Your task to perform on an android device: Open Youtube and go to "Your channel" Image 0: 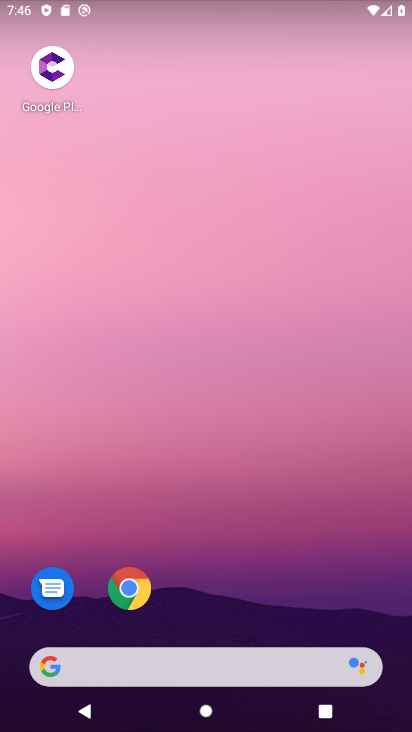
Step 0: drag from (323, 606) to (261, 0)
Your task to perform on an android device: Open Youtube and go to "Your channel" Image 1: 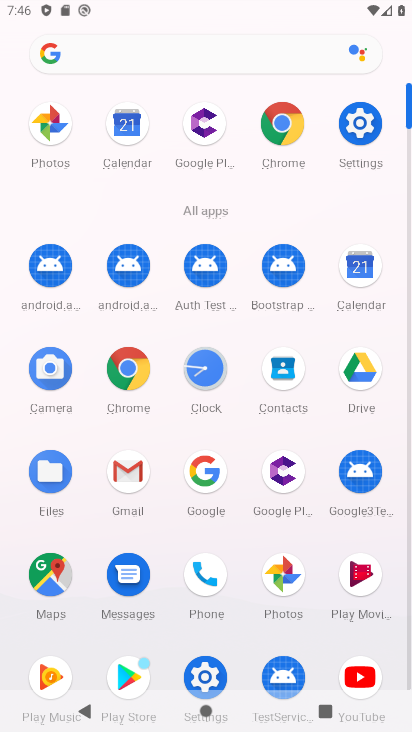
Step 1: drag from (189, 217) to (184, 7)
Your task to perform on an android device: Open Youtube and go to "Your channel" Image 2: 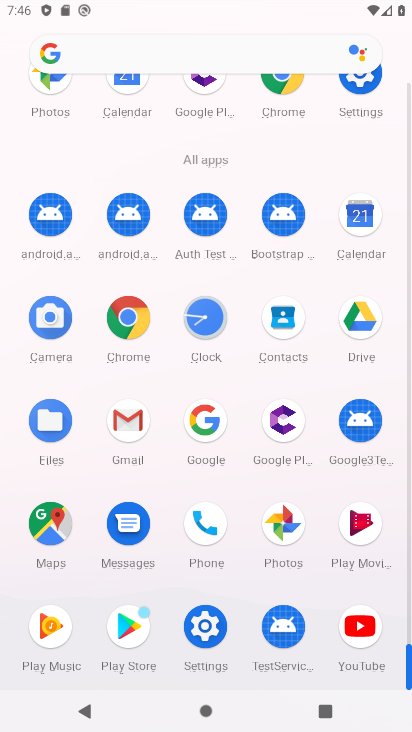
Step 2: click (365, 626)
Your task to perform on an android device: Open Youtube and go to "Your channel" Image 3: 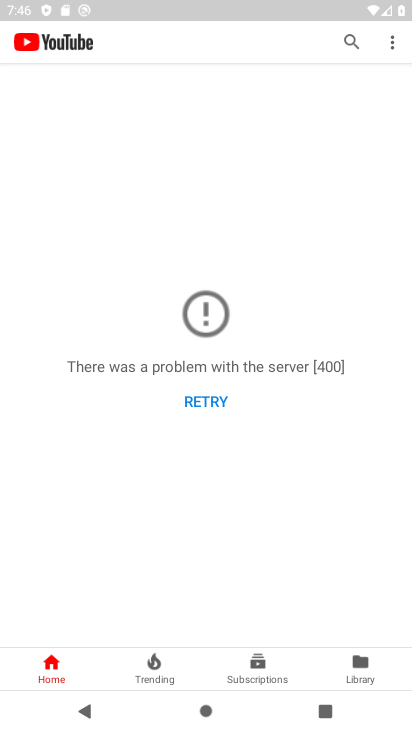
Step 3: click (349, 661)
Your task to perform on an android device: Open Youtube and go to "Your channel" Image 4: 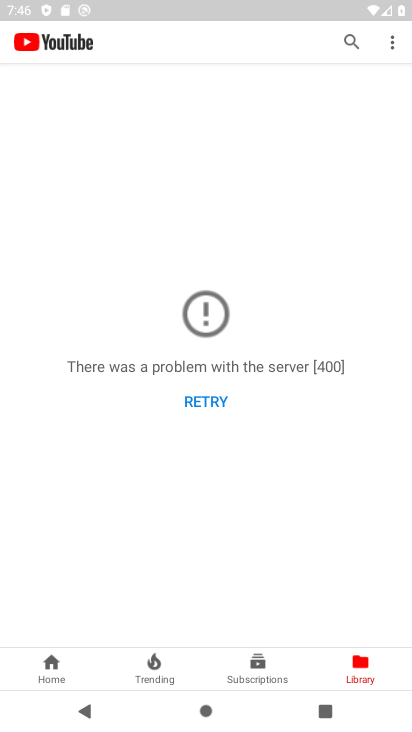
Step 4: click (368, 664)
Your task to perform on an android device: Open Youtube and go to "Your channel" Image 5: 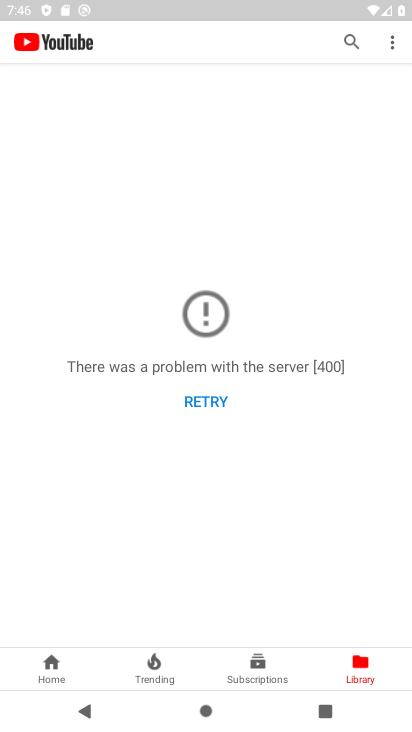
Step 5: click (209, 403)
Your task to perform on an android device: Open Youtube and go to "Your channel" Image 6: 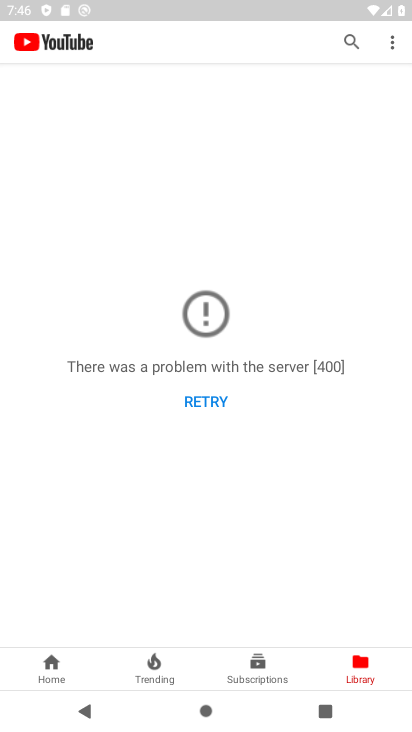
Step 6: click (209, 403)
Your task to perform on an android device: Open Youtube and go to "Your channel" Image 7: 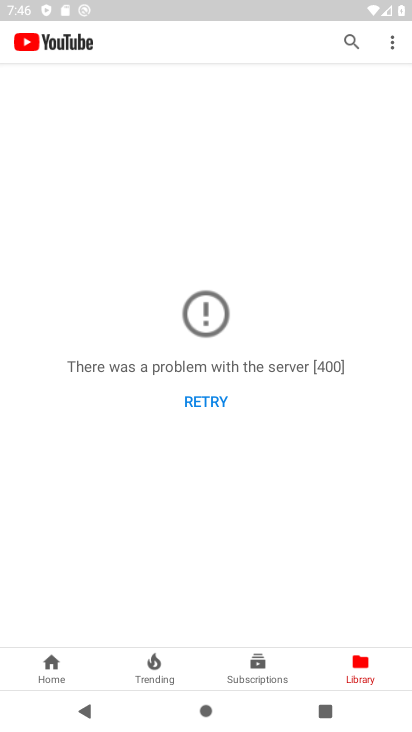
Step 7: click (186, 394)
Your task to perform on an android device: Open Youtube and go to "Your channel" Image 8: 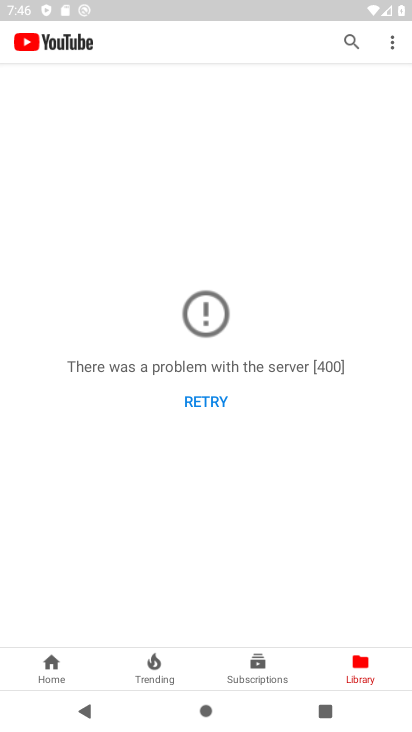
Step 8: click (266, 672)
Your task to perform on an android device: Open Youtube and go to "Your channel" Image 9: 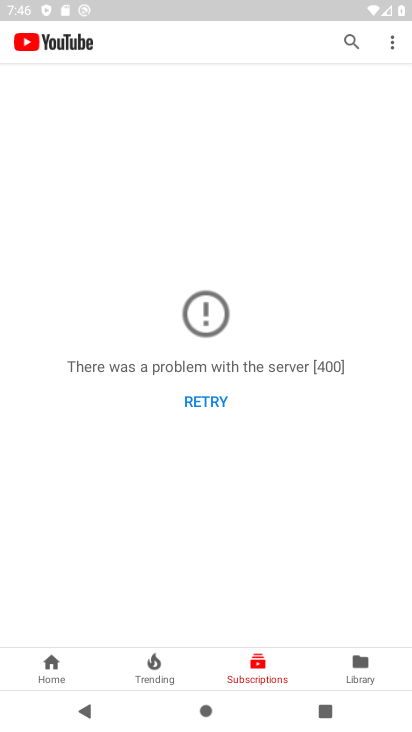
Step 9: click (152, 664)
Your task to perform on an android device: Open Youtube and go to "Your channel" Image 10: 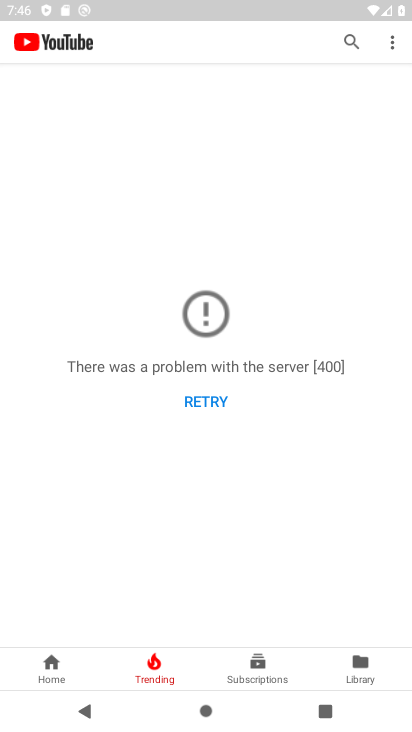
Step 10: click (33, 668)
Your task to perform on an android device: Open Youtube and go to "Your channel" Image 11: 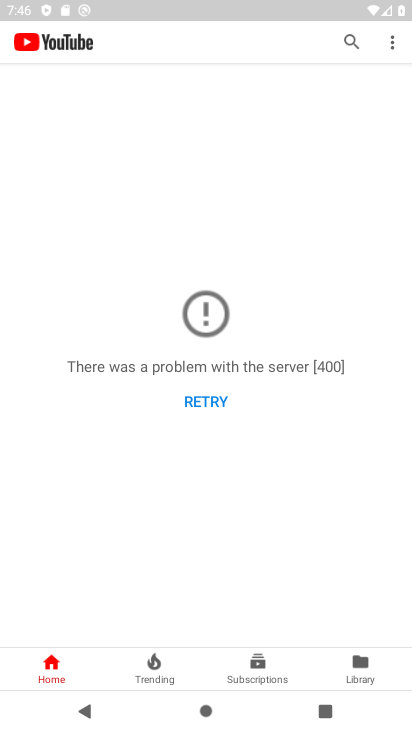
Step 11: click (368, 655)
Your task to perform on an android device: Open Youtube and go to "Your channel" Image 12: 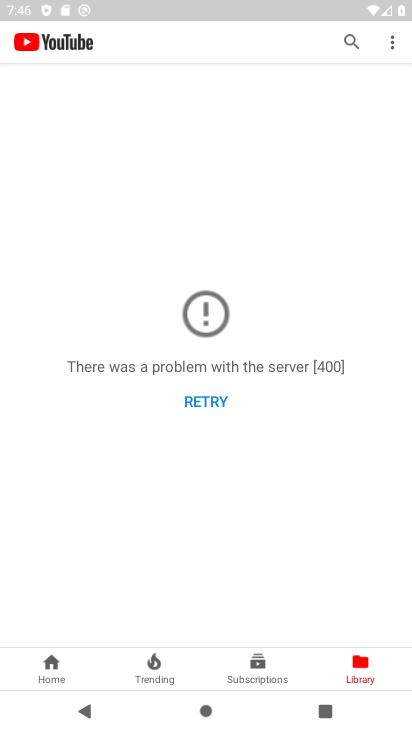
Step 12: click (201, 396)
Your task to perform on an android device: Open Youtube and go to "Your channel" Image 13: 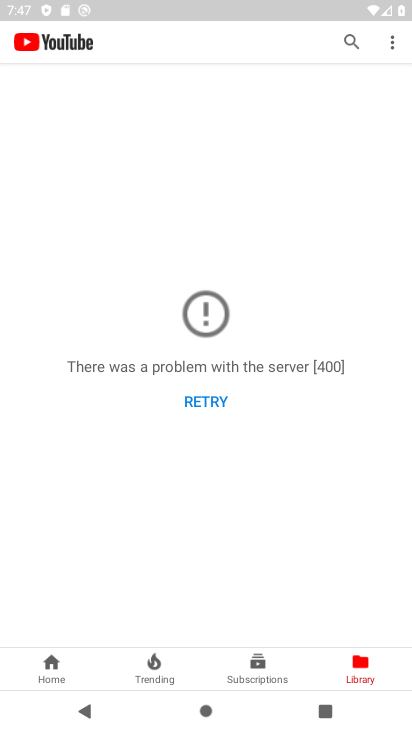
Step 13: task complete